Your task to perform on an android device: change alarm snooze length Image 0: 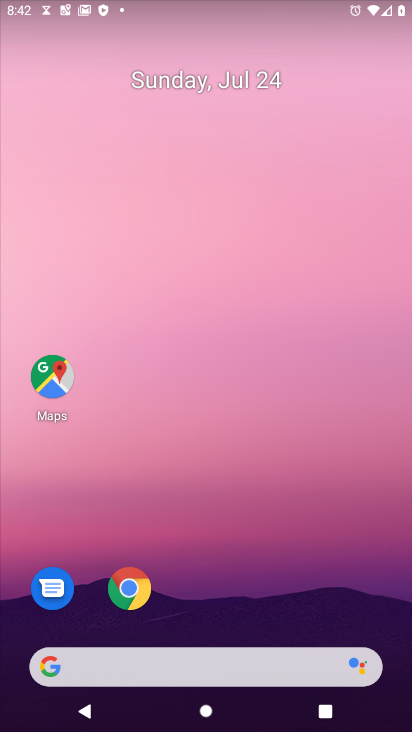
Step 0: press home button
Your task to perform on an android device: change alarm snooze length Image 1: 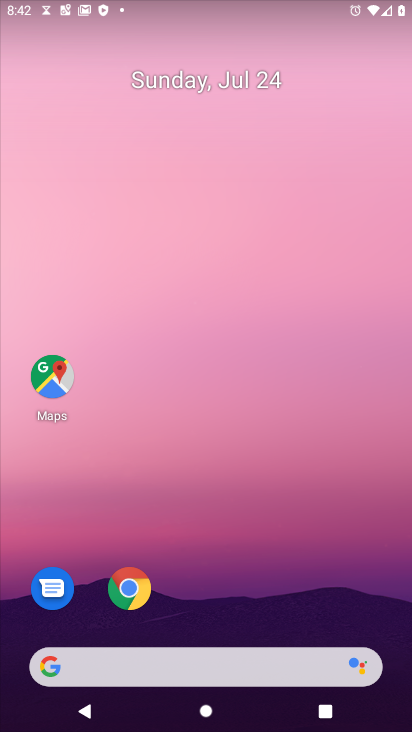
Step 1: drag from (213, 633) to (96, 13)
Your task to perform on an android device: change alarm snooze length Image 2: 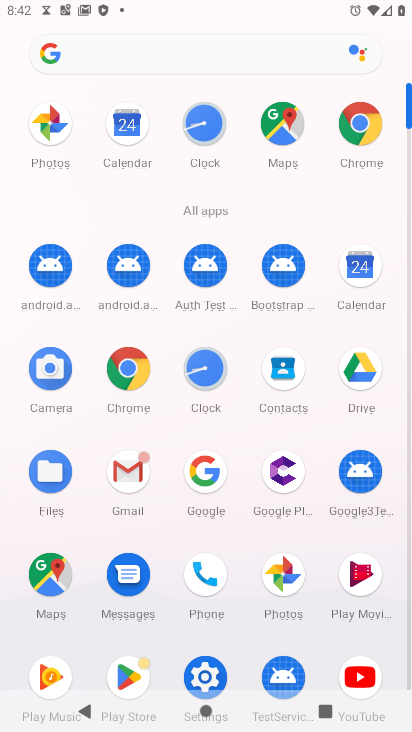
Step 2: click (197, 113)
Your task to perform on an android device: change alarm snooze length Image 3: 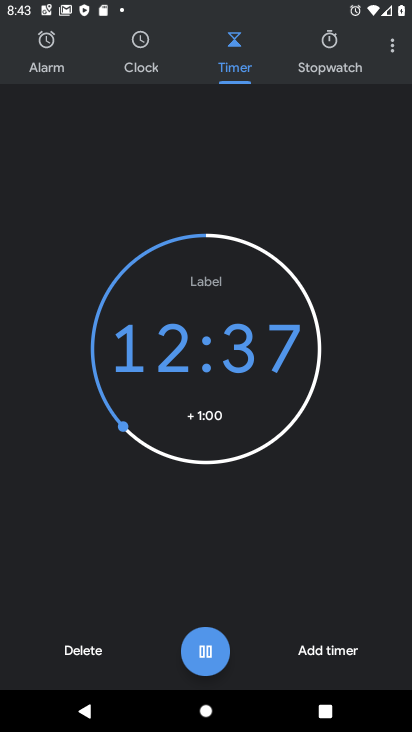
Step 3: click (77, 653)
Your task to perform on an android device: change alarm snooze length Image 4: 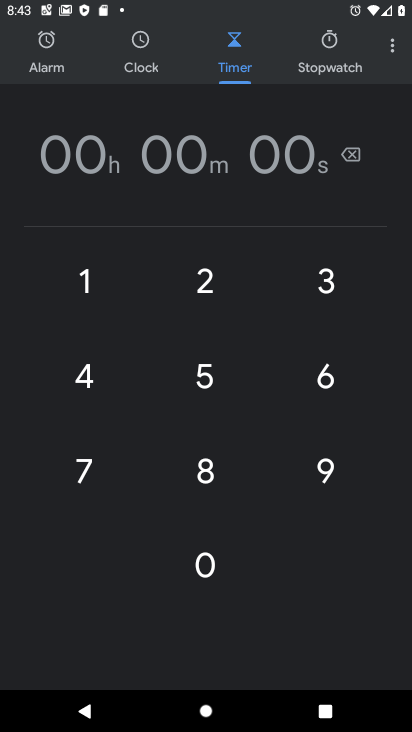
Step 4: click (392, 42)
Your task to perform on an android device: change alarm snooze length Image 5: 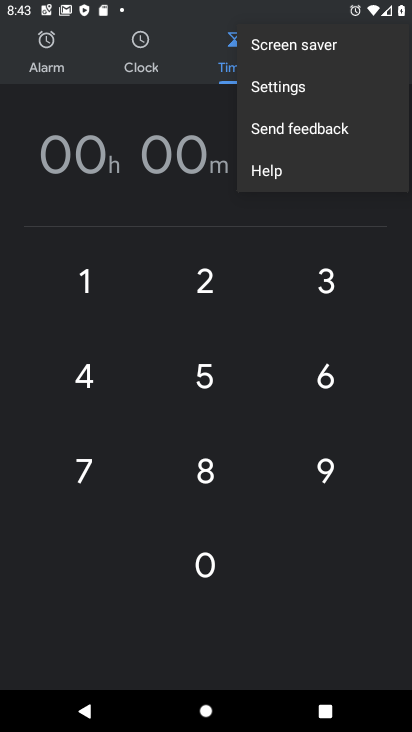
Step 5: click (311, 85)
Your task to perform on an android device: change alarm snooze length Image 6: 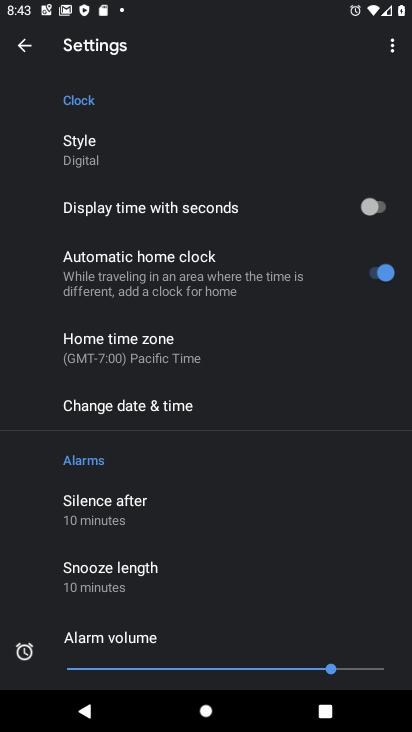
Step 6: click (176, 576)
Your task to perform on an android device: change alarm snooze length Image 7: 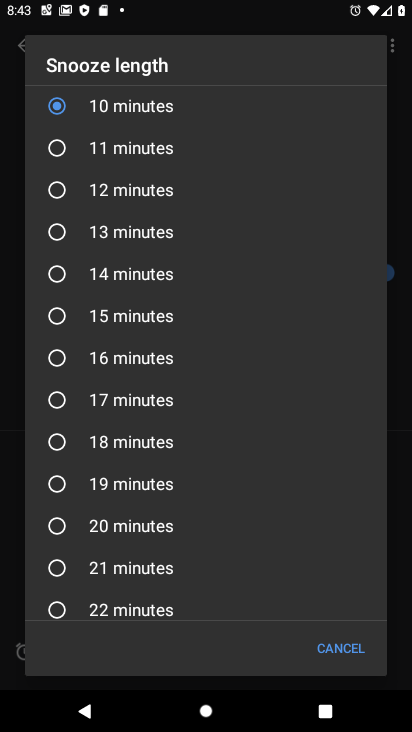
Step 7: drag from (63, 165) to (57, 491)
Your task to perform on an android device: change alarm snooze length Image 8: 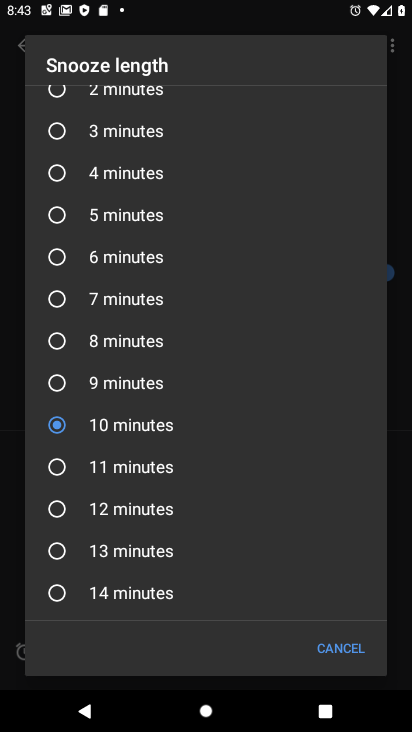
Step 8: click (55, 214)
Your task to perform on an android device: change alarm snooze length Image 9: 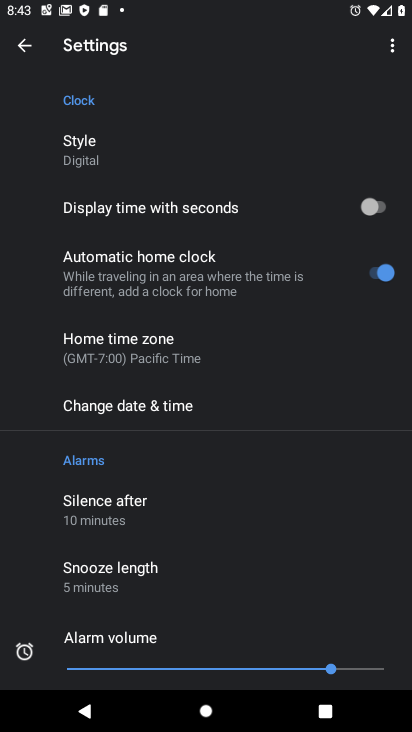
Step 9: task complete